Your task to perform on an android device: open app "ZOOM Cloud Meetings" (install if not already installed) and enter user name: "bauxite@icloud.com" and password: "dim" Image 0: 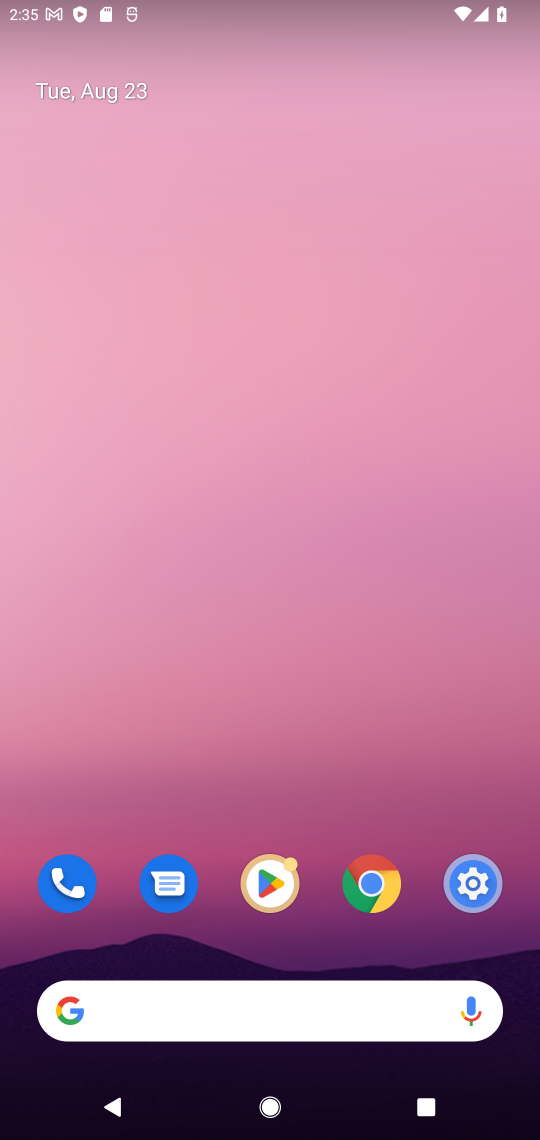
Step 0: drag from (229, 945) to (249, 296)
Your task to perform on an android device: open app "ZOOM Cloud Meetings" (install if not already installed) and enter user name: "bauxite@icloud.com" and password: "dim" Image 1: 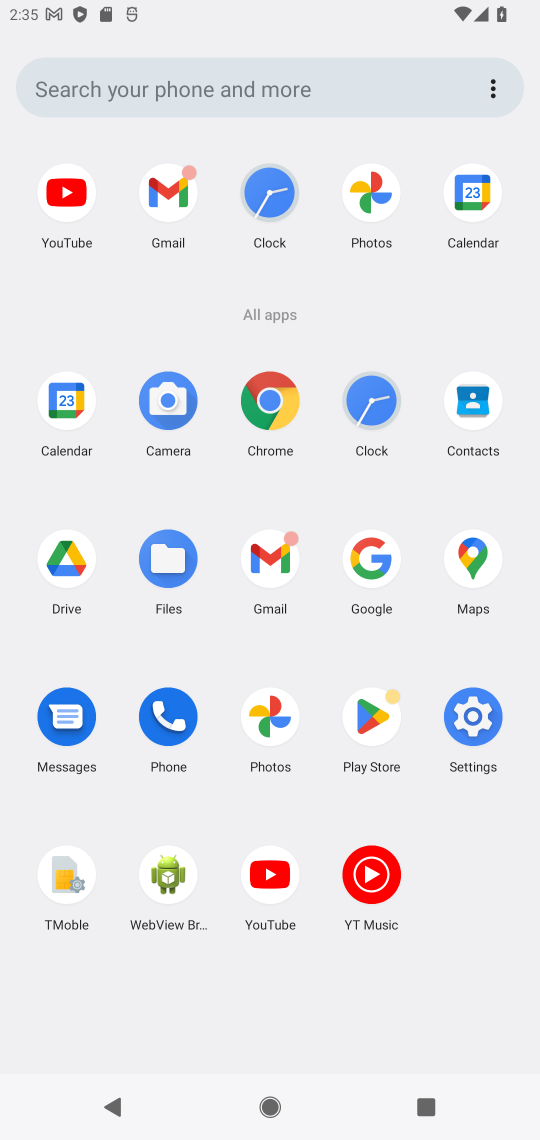
Step 1: click (374, 704)
Your task to perform on an android device: open app "ZOOM Cloud Meetings" (install if not already installed) and enter user name: "bauxite@icloud.com" and password: "dim" Image 2: 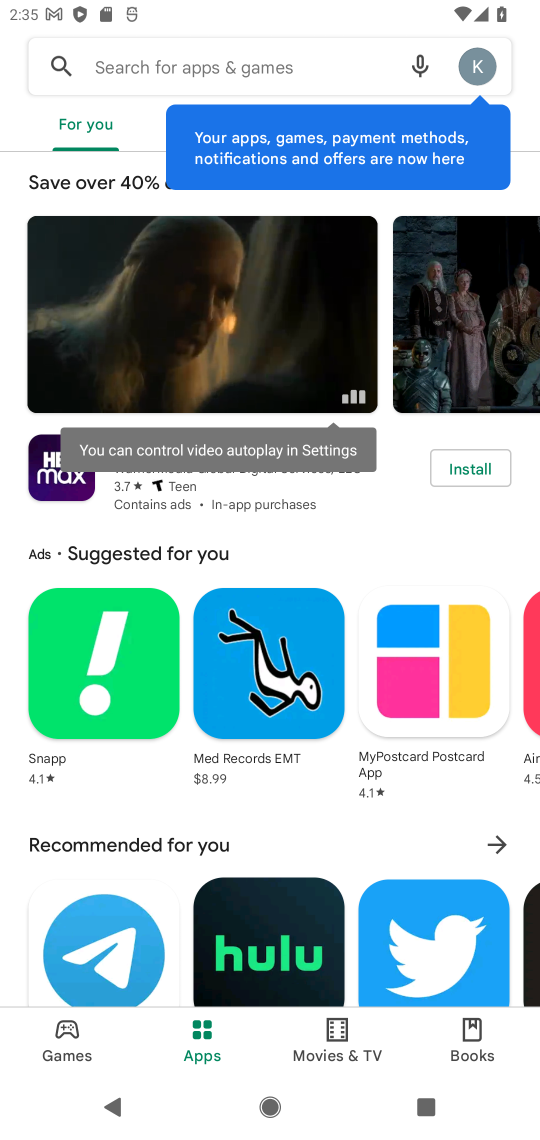
Step 2: click (205, 60)
Your task to perform on an android device: open app "ZOOM Cloud Meetings" (install if not already installed) and enter user name: "bauxite@icloud.com" and password: "dim" Image 3: 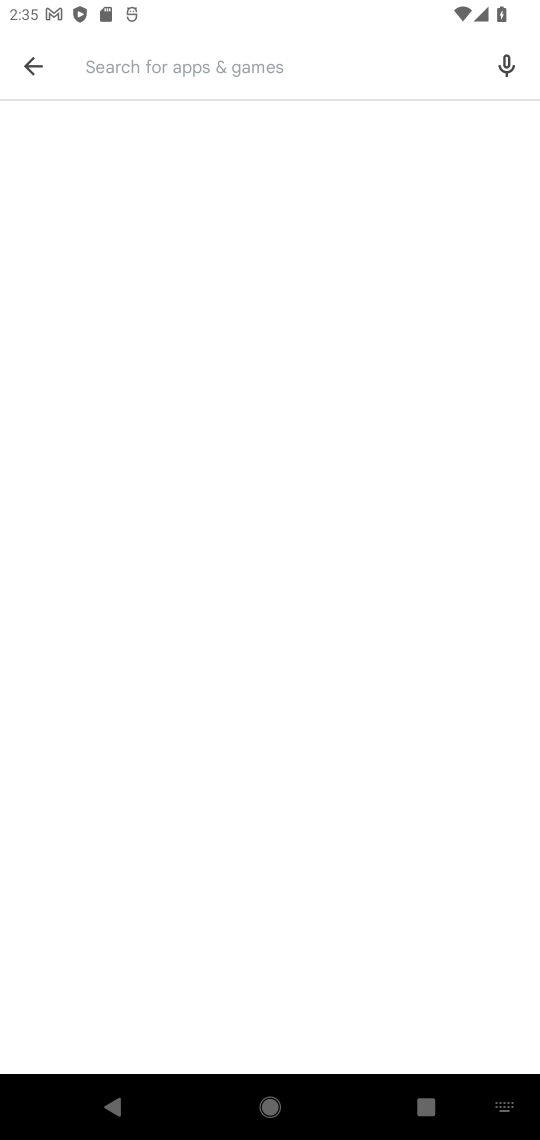
Step 3: type "ZOOM Cloud Meetings"
Your task to perform on an android device: open app "ZOOM Cloud Meetings" (install if not already installed) and enter user name: "bauxite@icloud.com" and password: "dim" Image 4: 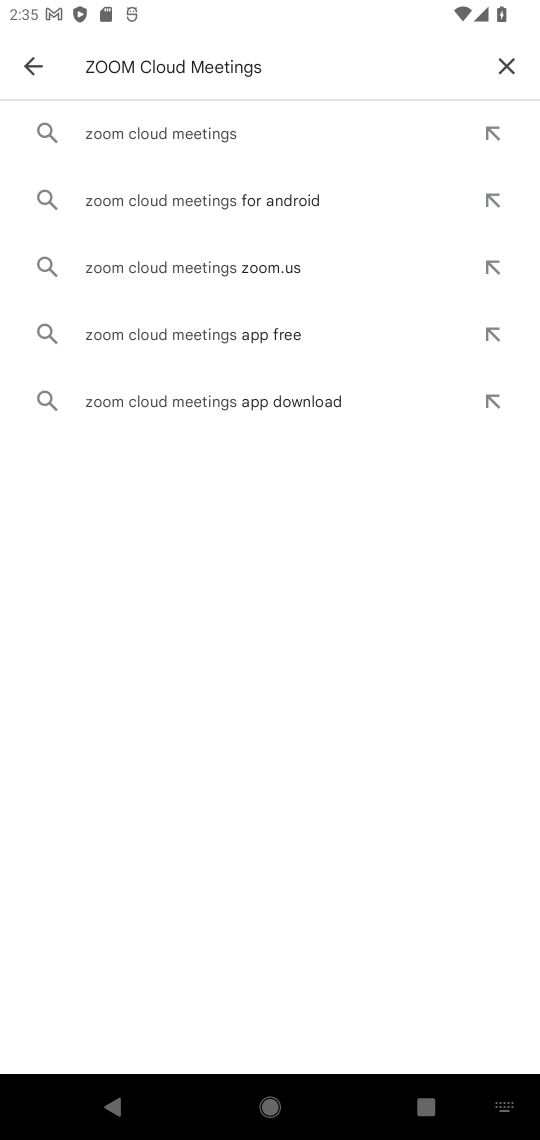
Step 4: click (109, 132)
Your task to perform on an android device: open app "ZOOM Cloud Meetings" (install if not already installed) and enter user name: "bauxite@icloud.com" and password: "dim" Image 5: 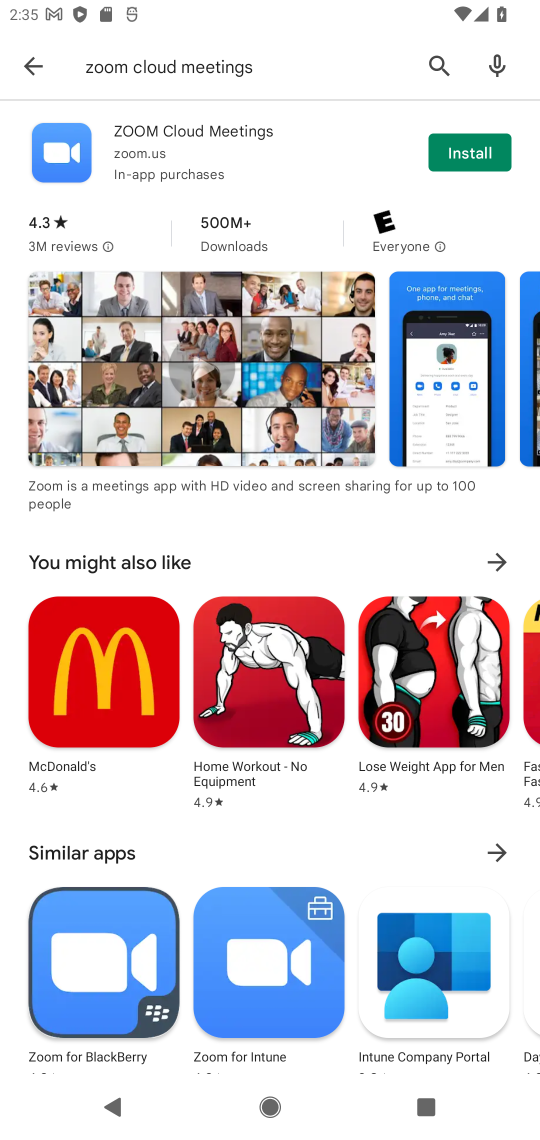
Step 5: click (479, 152)
Your task to perform on an android device: open app "ZOOM Cloud Meetings" (install if not already installed) and enter user name: "bauxite@icloud.com" and password: "dim" Image 6: 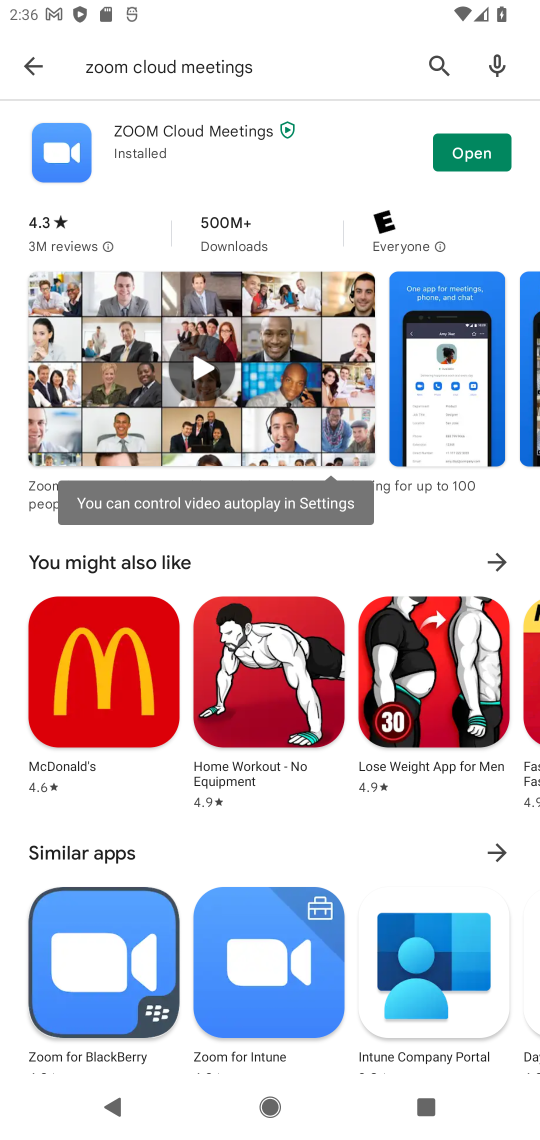
Step 6: click (447, 156)
Your task to perform on an android device: open app "ZOOM Cloud Meetings" (install if not already installed) and enter user name: "bauxite@icloud.com" and password: "dim" Image 7: 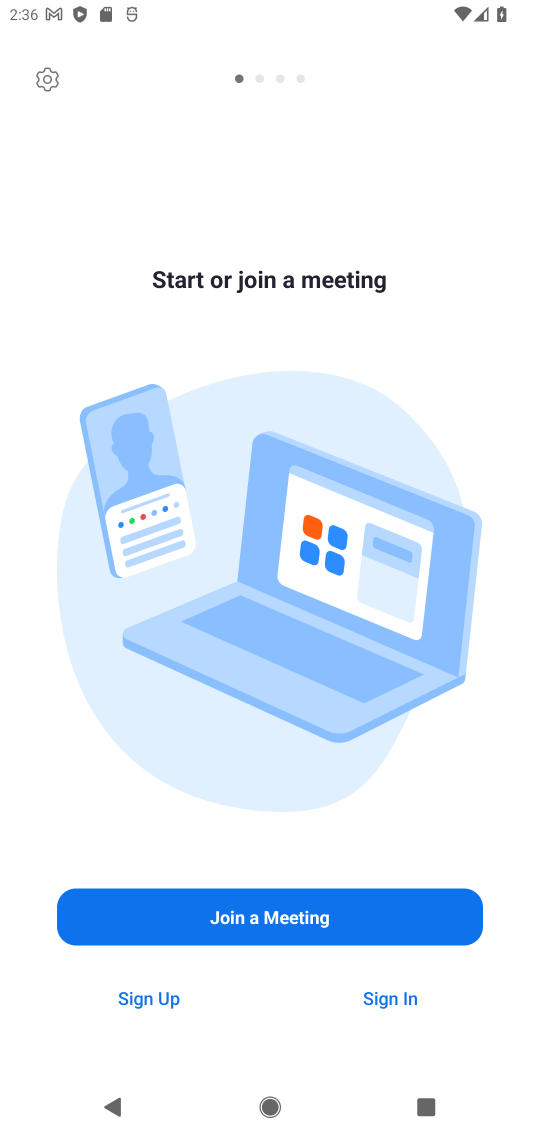
Step 7: task complete